Your task to perform on an android device: add a contact Image 0: 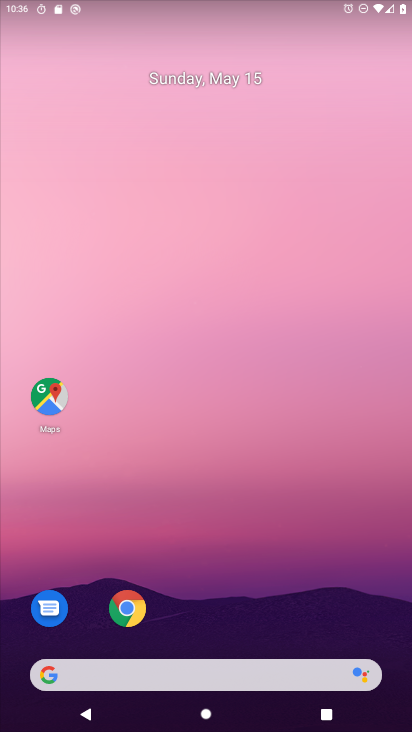
Step 0: drag from (266, 519) to (298, 138)
Your task to perform on an android device: add a contact Image 1: 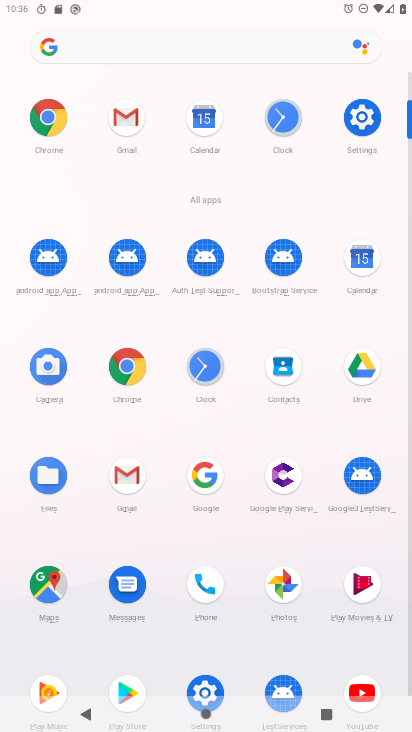
Step 1: click (365, 266)
Your task to perform on an android device: add a contact Image 2: 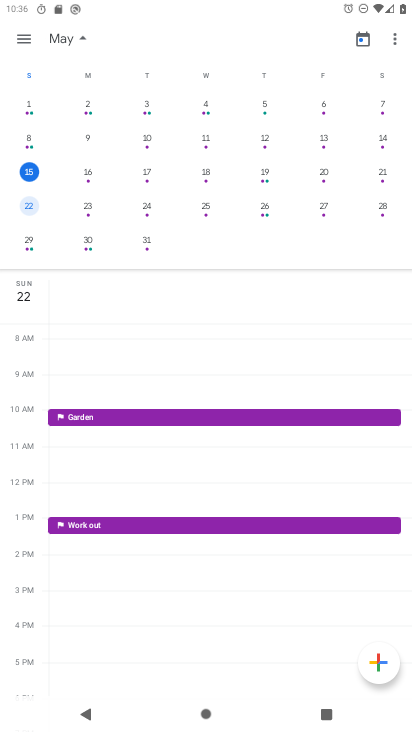
Step 2: press home button
Your task to perform on an android device: add a contact Image 3: 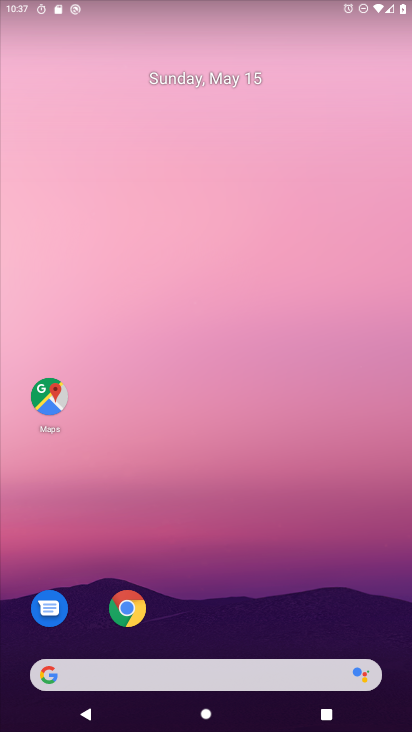
Step 3: drag from (280, 235) to (294, 113)
Your task to perform on an android device: add a contact Image 4: 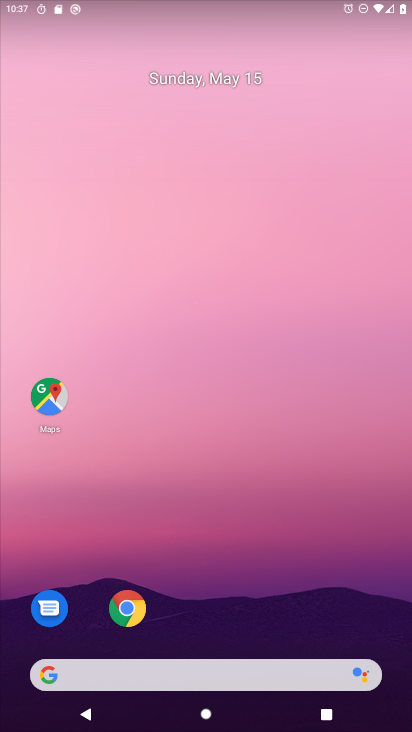
Step 4: drag from (328, 632) to (358, 83)
Your task to perform on an android device: add a contact Image 5: 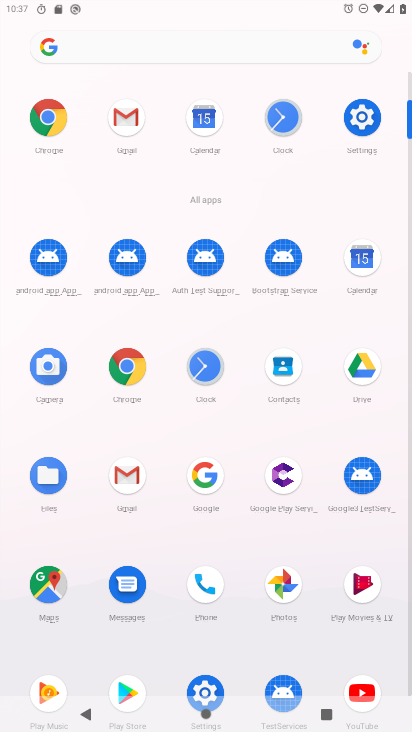
Step 5: click (294, 395)
Your task to perform on an android device: add a contact Image 6: 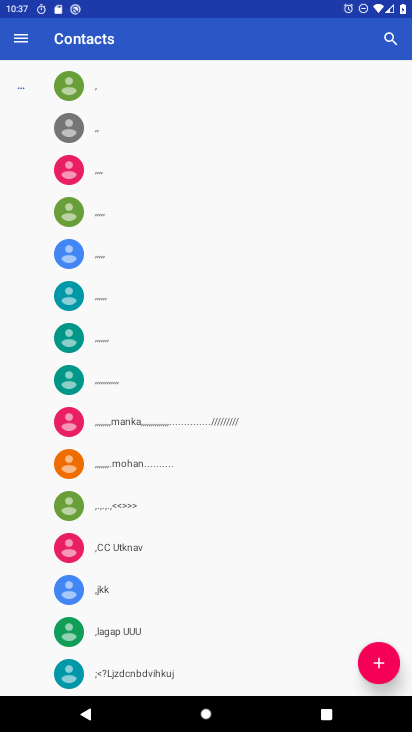
Step 6: click (363, 661)
Your task to perform on an android device: add a contact Image 7: 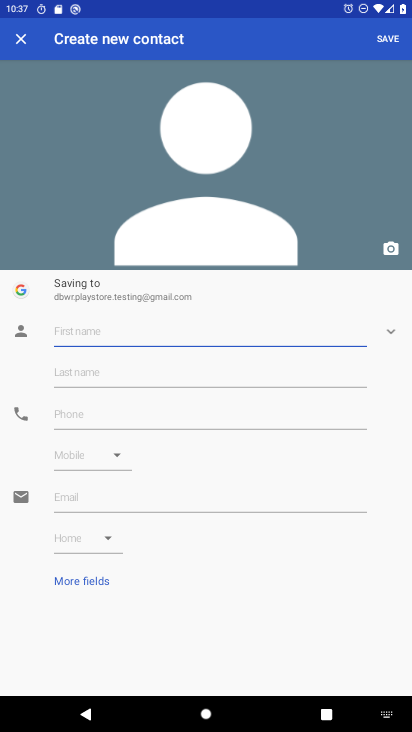
Step 7: click (86, 322)
Your task to perform on an android device: add a contact Image 8: 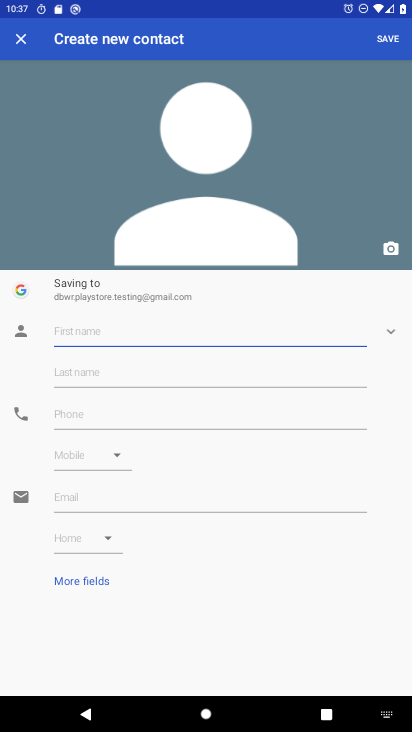
Step 8: type "rashmi"
Your task to perform on an android device: add a contact Image 9: 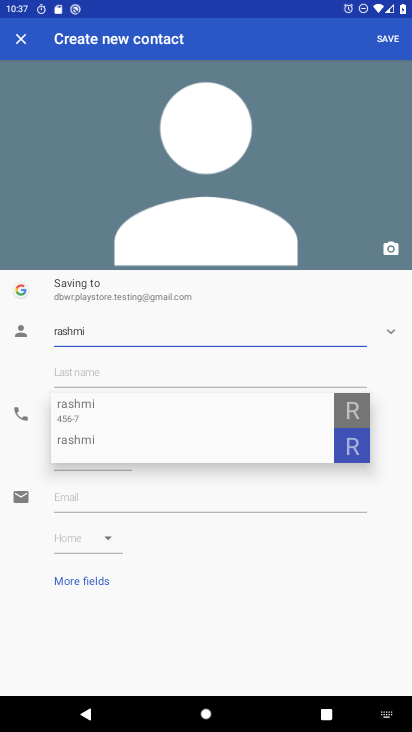
Step 9: click (126, 416)
Your task to perform on an android device: add a contact Image 10: 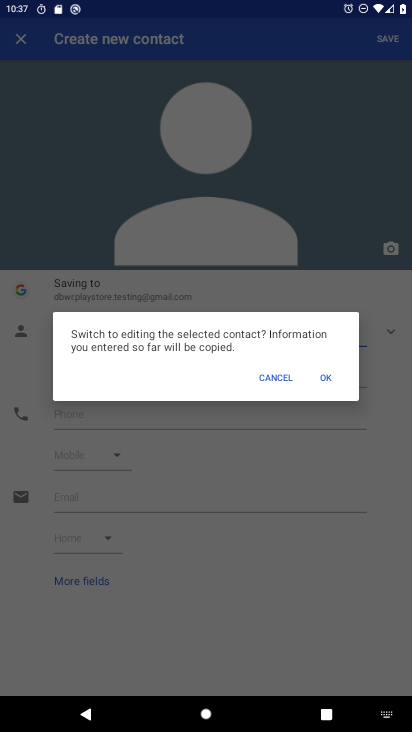
Step 10: click (275, 383)
Your task to perform on an android device: add a contact Image 11: 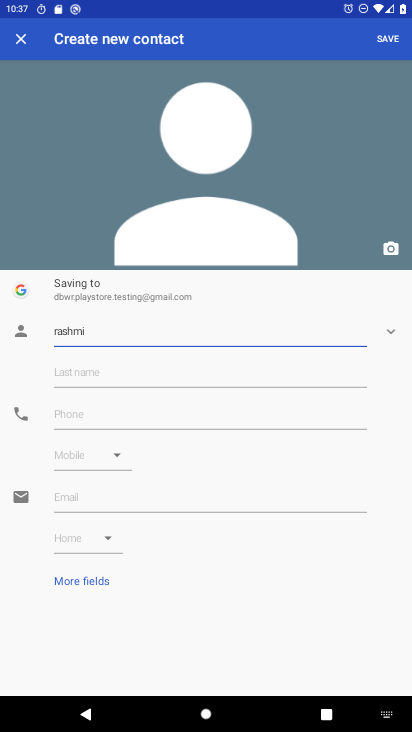
Step 11: click (80, 419)
Your task to perform on an android device: add a contact Image 12: 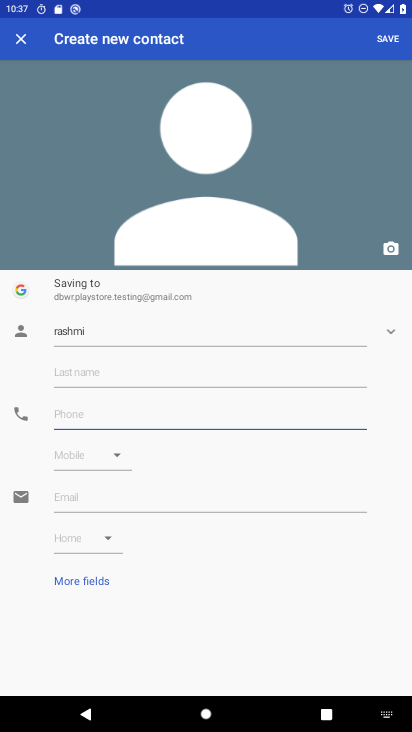
Step 12: type "98383489992"
Your task to perform on an android device: add a contact Image 13: 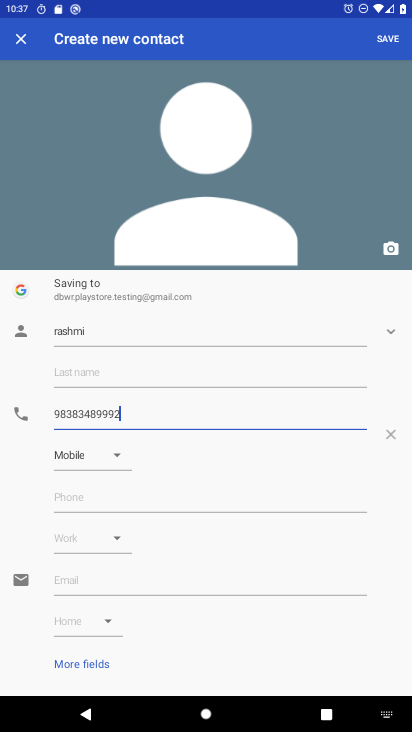
Step 13: task complete